Your task to perform on an android device: show emergency info Image 0: 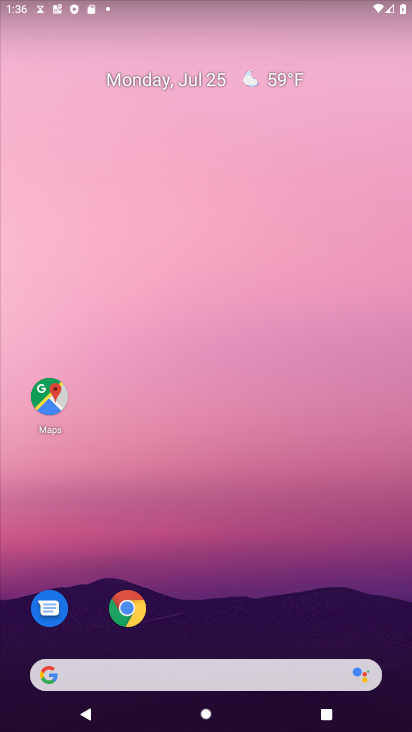
Step 0: drag from (204, 595) to (158, 8)
Your task to perform on an android device: show emergency info Image 1: 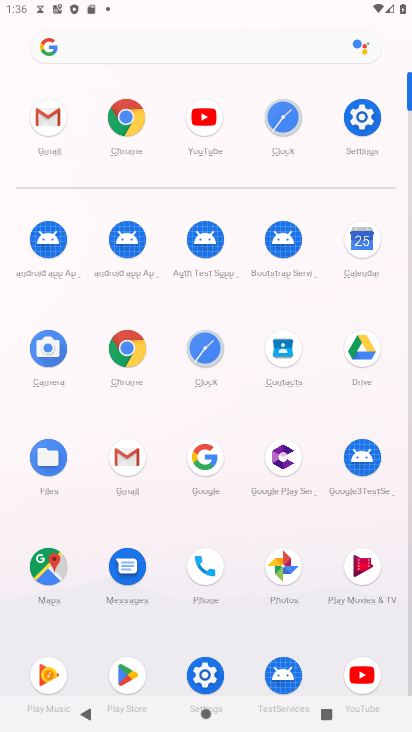
Step 1: click (222, 672)
Your task to perform on an android device: show emergency info Image 2: 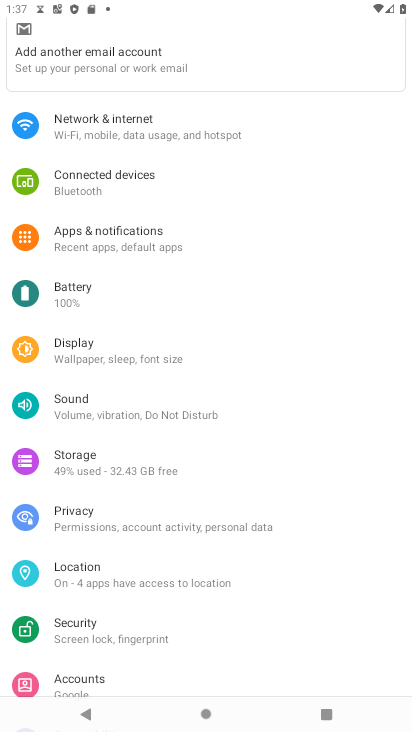
Step 2: drag from (201, 641) to (55, 9)
Your task to perform on an android device: show emergency info Image 3: 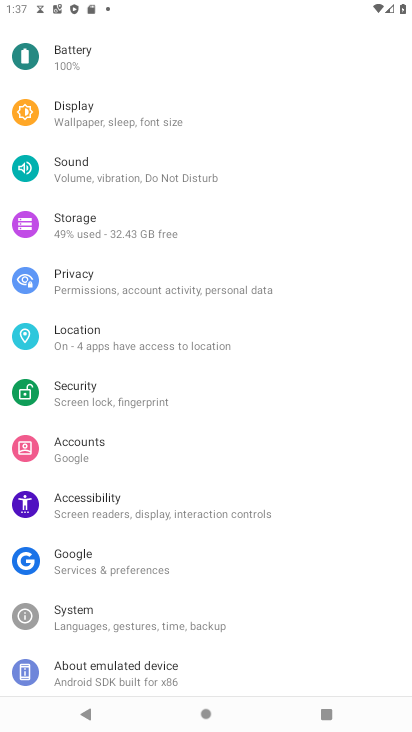
Step 3: click (207, 667)
Your task to perform on an android device: show emergency info Image 4: 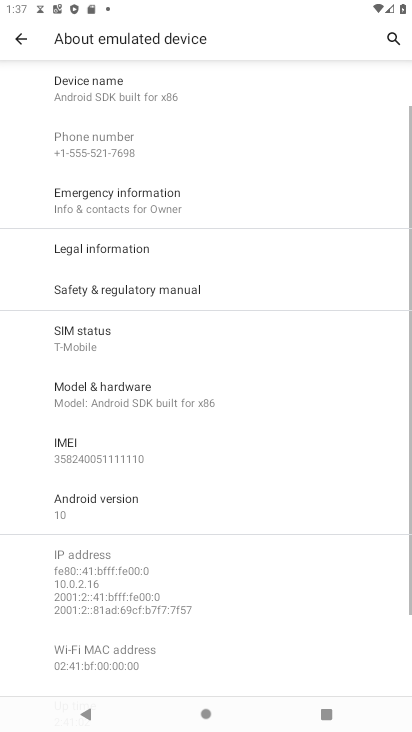
Step 4: click (169, 211)
Your task to perform on an android device: show emergency info Image 5: 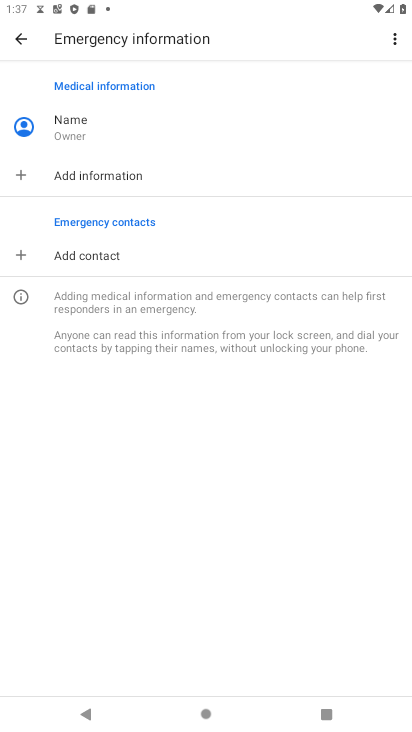
Step 5: task complete